Your task to perform on an android device: Go to Amazon Image 0: 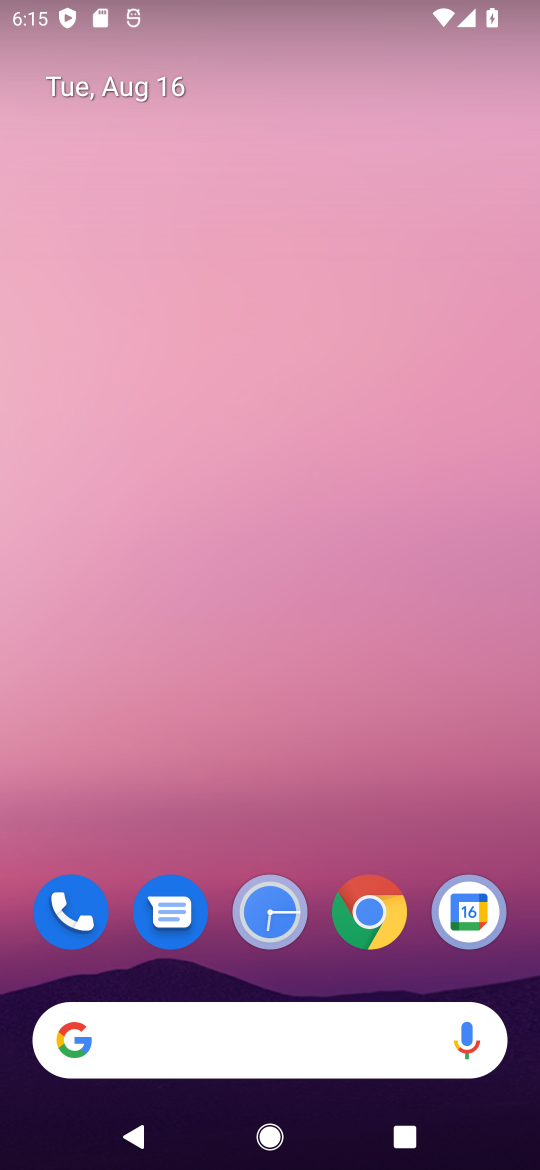
Step 0: click (371, 911)
Your task to perform on an android device: Go to Amazon Image 1: 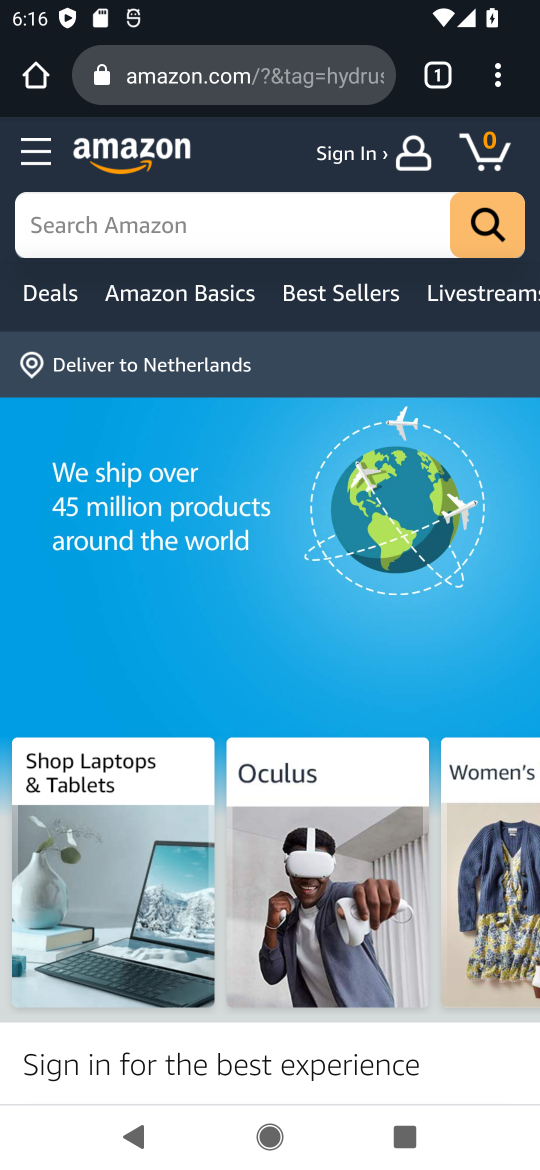
Step 1: task complete